Your task to perform on an android device: stop showing notifications on the lock screen Image 0: 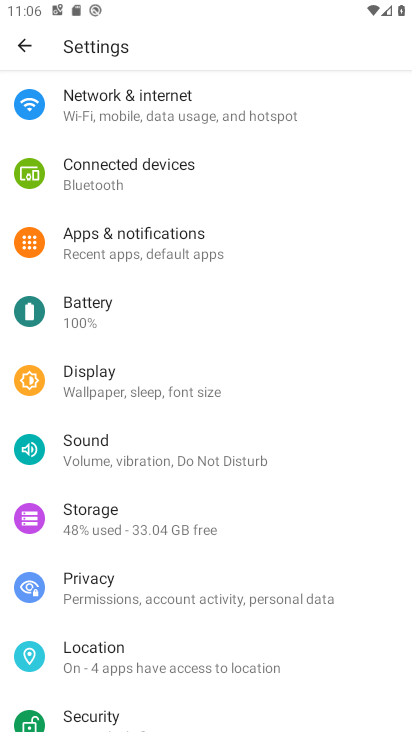
Step 0: click (294, 246)
Your task to perform on an android device: stop showing notifications on the lock screen Image 1: 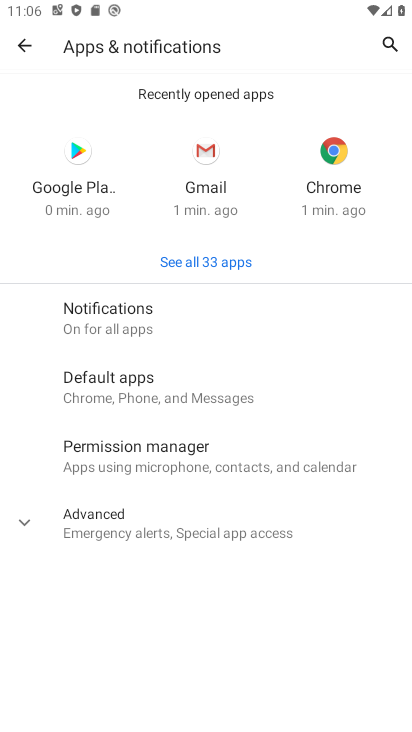
Step 1: click (265, 315)
Your task to perform on an android device: stop showing notifications on the lock screen Image 2: 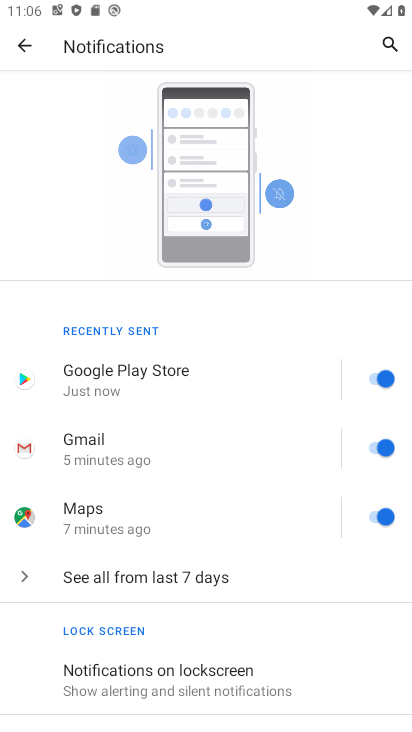
Step 2: drag from (303, 643) to (285, 124)
Your task to perform on an android device: stop showing notifications on the lock screen Image 3: 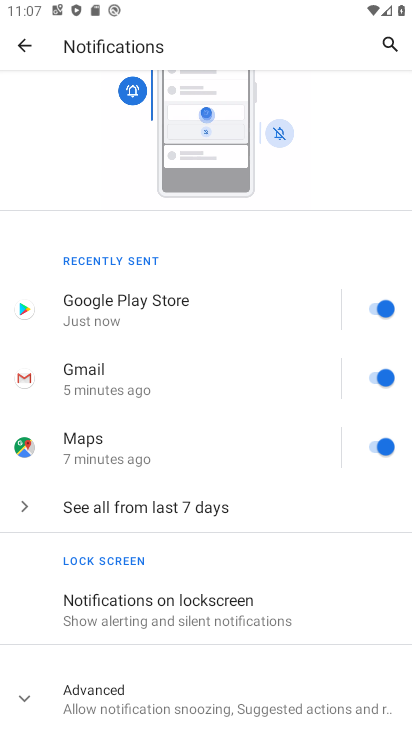
Step 3: click (338, 618)
Your task to perform on an android device: stop showing notifications on the lock screen Image 4: 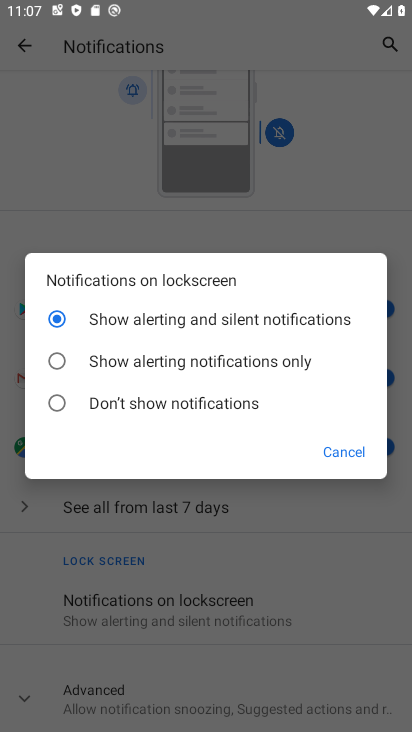
Step 4: click (242, 401)
Your task to perform on an android device: stop showing notifications on the lock screen Image 5: 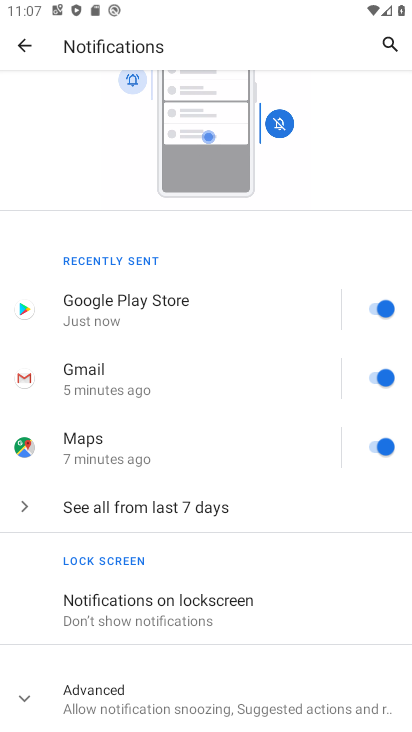
Step 5: task complete